Your task to perform on an android device: turn off javascript in the chrome app Image 0: 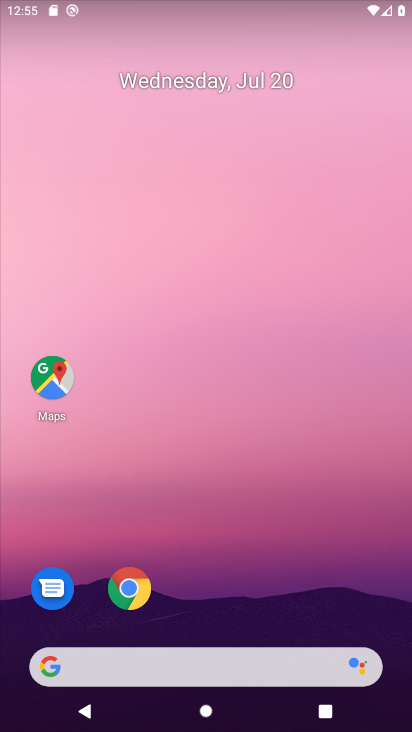
Step 0: drag from (120, 550) to (203, 202)
Your task to perform on an android device: turn off javascript in the chrome app Image 1: 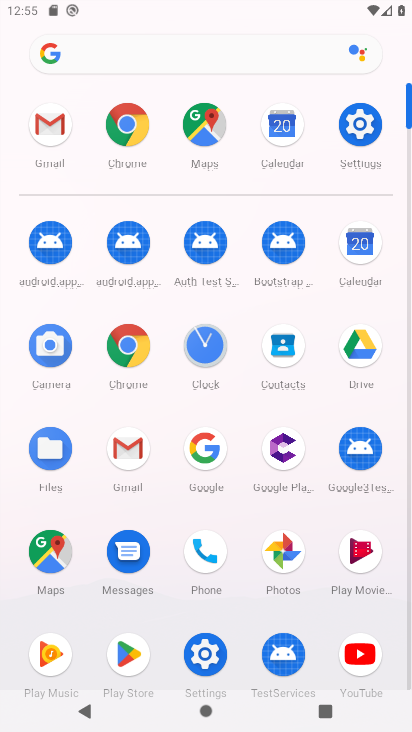
Step 1: click (137, 124)
Your task to perform on an android device: turn off javascript in the chrome app Image 2: 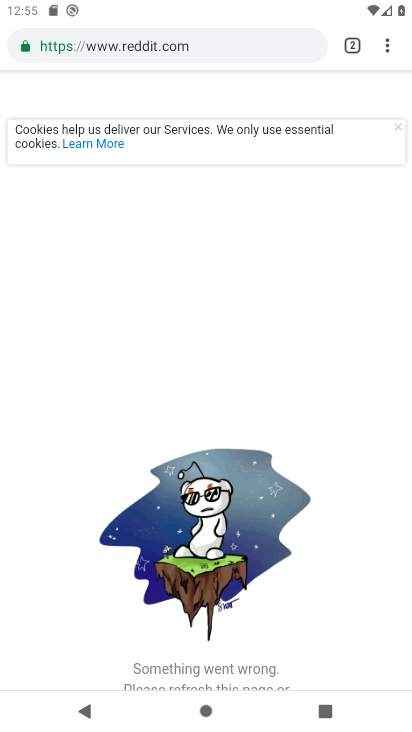
Step 2: click (396, 41)
Your task to perform on an android device: turn off javascript in the chrome app Image 3: 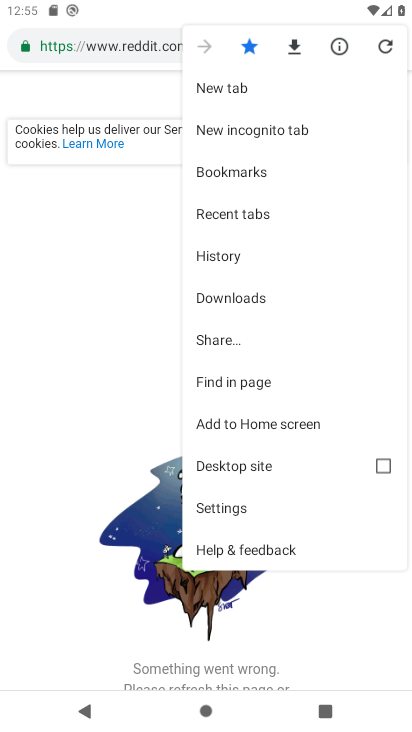
Step 3: click (228, 495)
Your task to perform on an android device: turn off javascript in the chrome app Image 4: 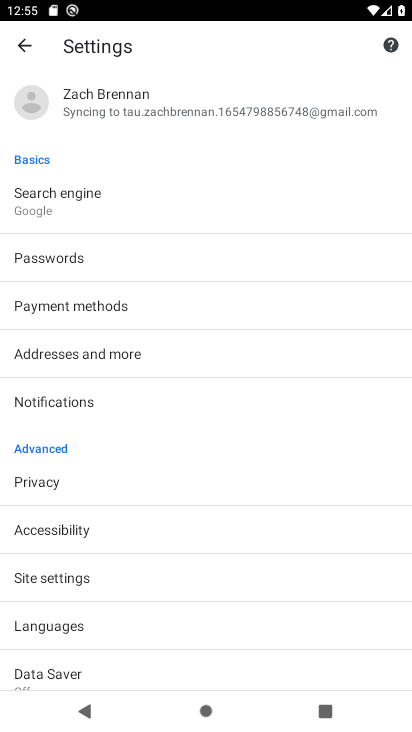
Step 4: click (118, 565)
Your task to perform on an android device: turn off javascript in the chrome app Image 5: 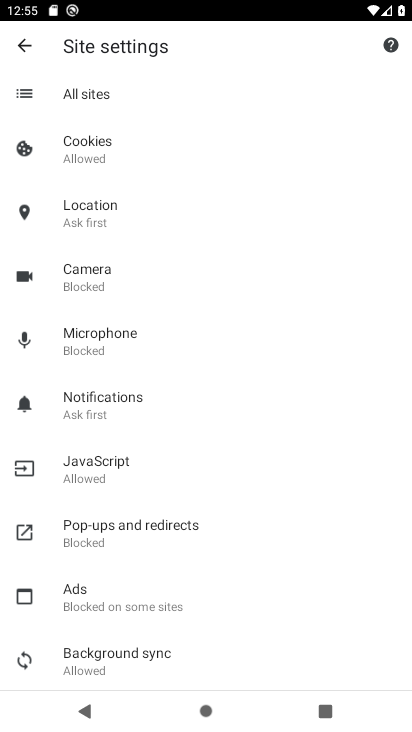
Step 5: click (135, 452)
Your task to perform on an android device: turn off javascript in the chrome app Image 6: 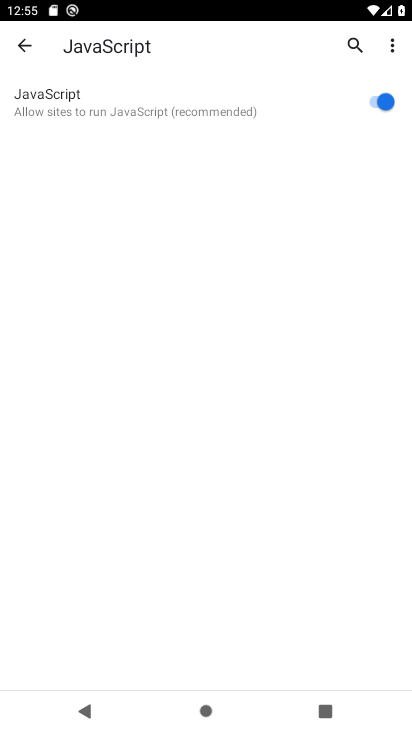
Step 6: click (374, 97)
Your task to perform on an android device: turn off javascript in the chrome app Image 7: 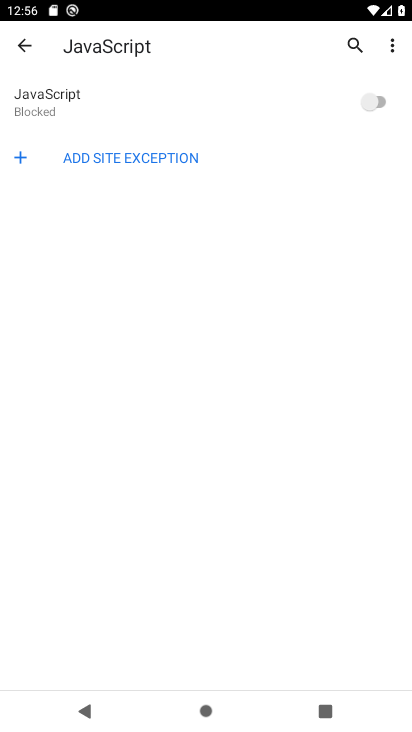
Step 7: task complete